Your task to perform on an android device: Turn off the flashlight Image 0: 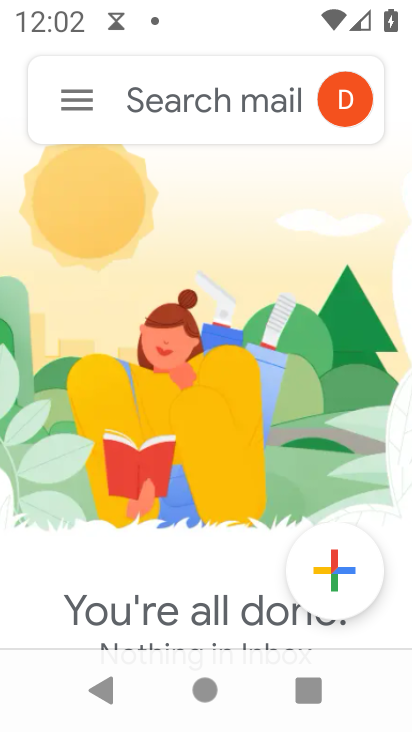
Step 0: press home button
Your task to perform on an android device: Turn off the flashlight Image 1: 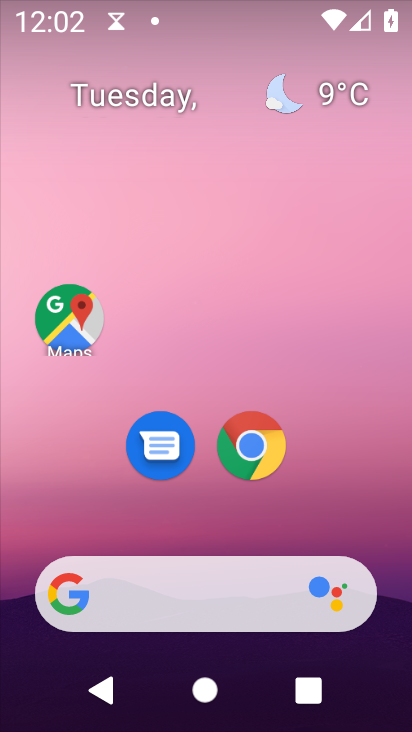
Step 1: drag from (350, 534) to (302, 3)
Your task to perform on an android device: Turn off the flashlight Image 2: 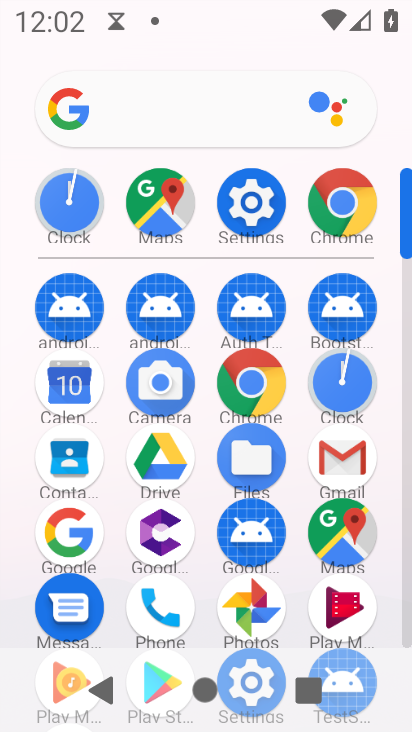
Step 2: click (234, 206)
Your task to perform on an android device: Turn off the flashlight Image 3: 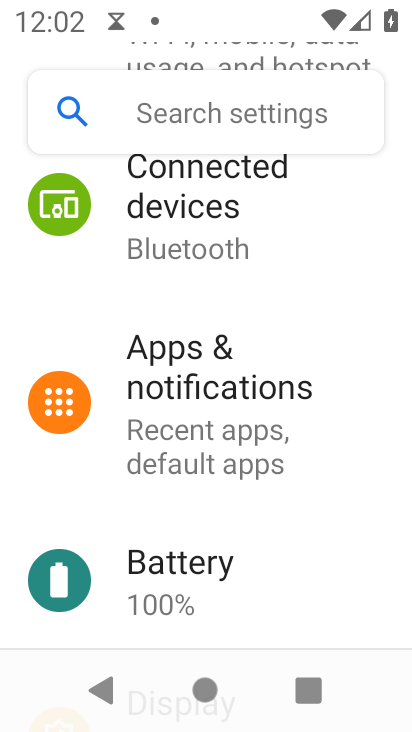
Step 3: task complete